Your task to perform on an android device: Open settings on Google Maps Image 0: 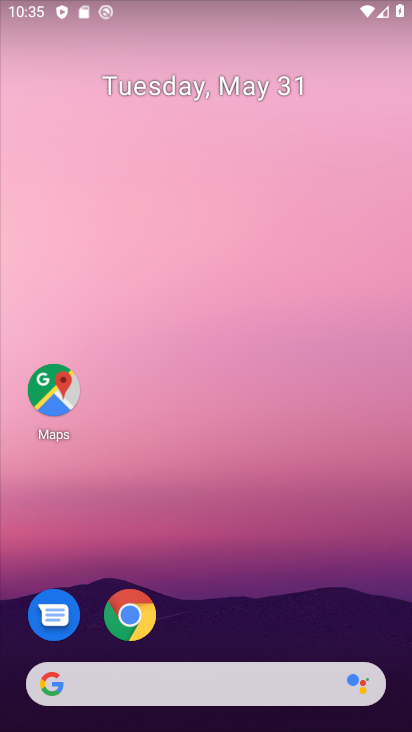
Step 0: click (62, 420)
Your task to perform on an android device: Open settings on Google Maps Image 1: 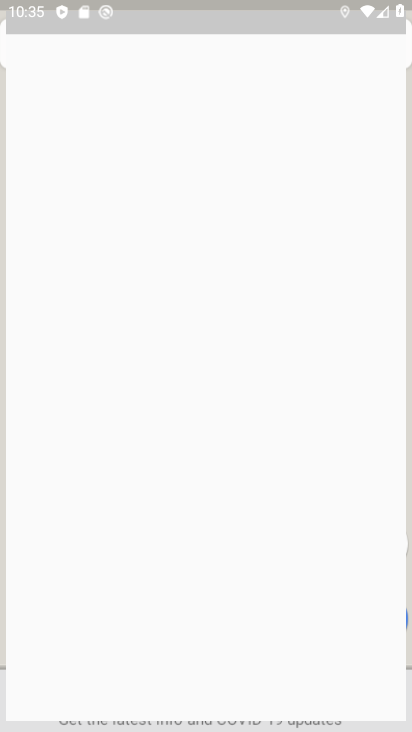
Step 1: task complete